Your task to perform on an android device: toggle javascript in the chrome app Image 0: 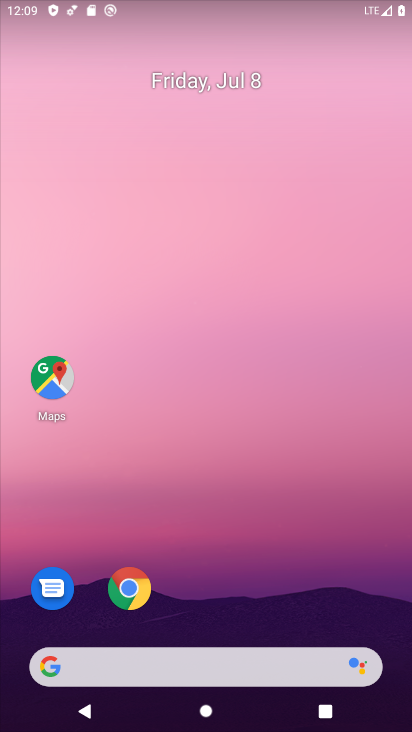
Step 0: click (125, 586)
Your task to perform on an android device: toggle javascript in the chrome app Image 1: 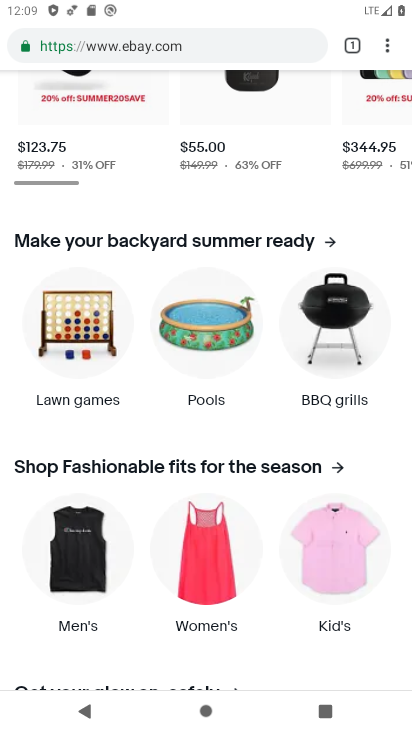
Step 1: drag from (150, 123) to (169, 564)
Your task to perform on an android device: toggle javascript in the chrome app Image 2: 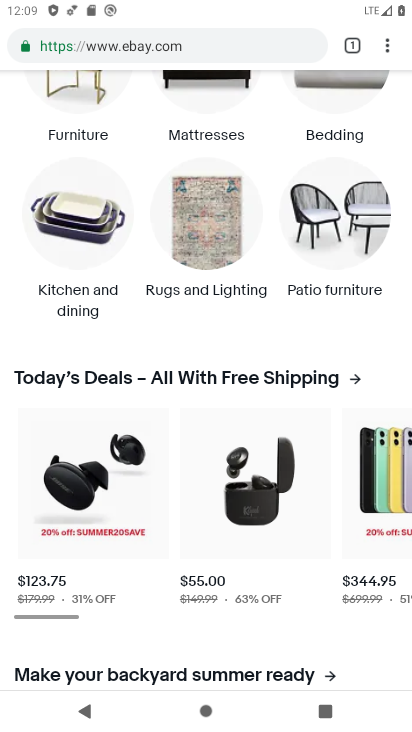
Step 2: click (346, 31)
Your task to perform on an android device: toggle javascript in the chrome app Image 3: 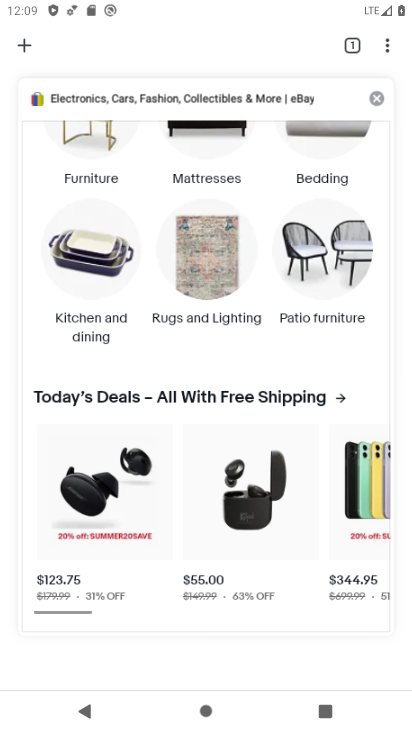
Step 3: click (379, 94)
Your task to perform on an android device: toggle javascript in the chrome app Image 4: 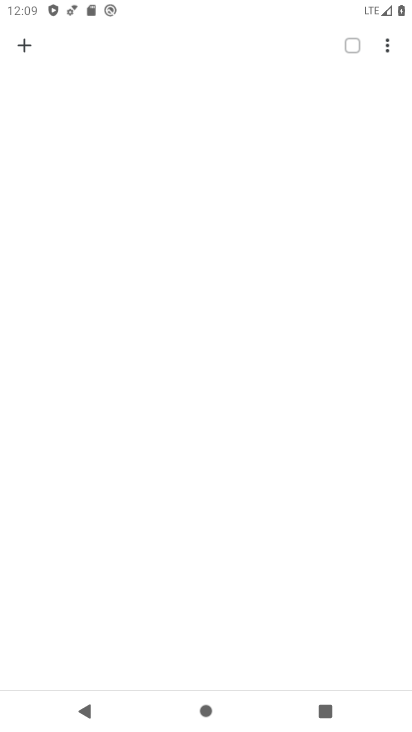
Step 4: click (21, 40)
Your task to perform on an android device: toggle javascript in the chrome app Image 5: 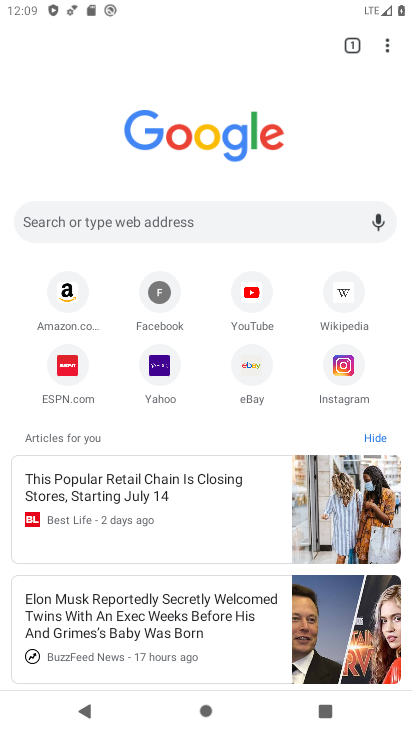
Step 5: click (390, 40)
Your task to perform on an android device: toggle javascript in the chrome app Image 6: 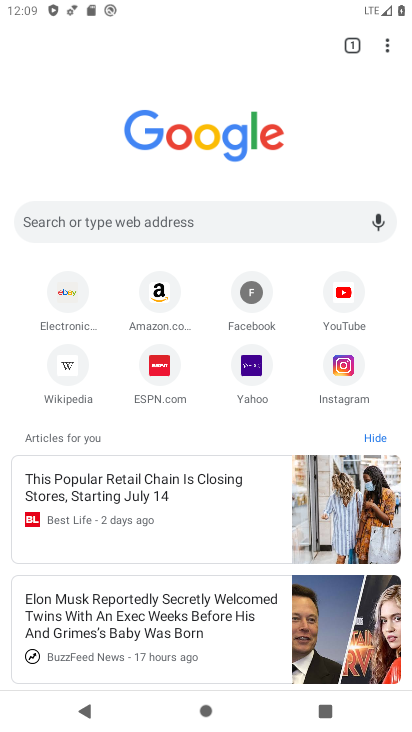
Step 6: click (385, 36)
Your task to perform on an android device: toggle javascript in the chrome app Image 7: 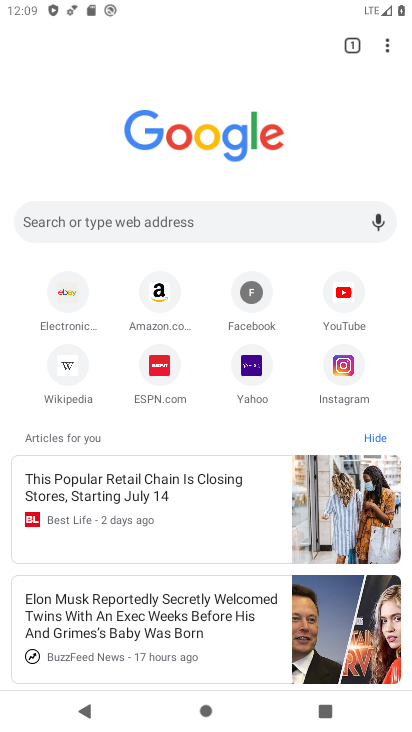
Step 7: click (385, 52)
Your task to perform on an android device: toggle javascript in the chrome app Image 8: 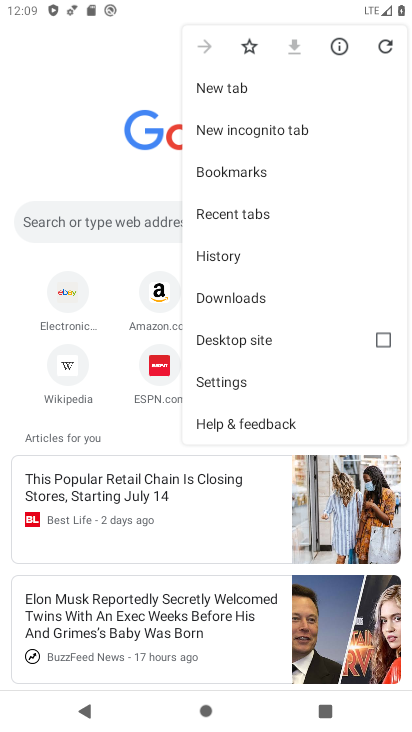
Step 8: click (253, 378)
Your task to perform on an android device: toggle javascript in the chrome app Image 9: 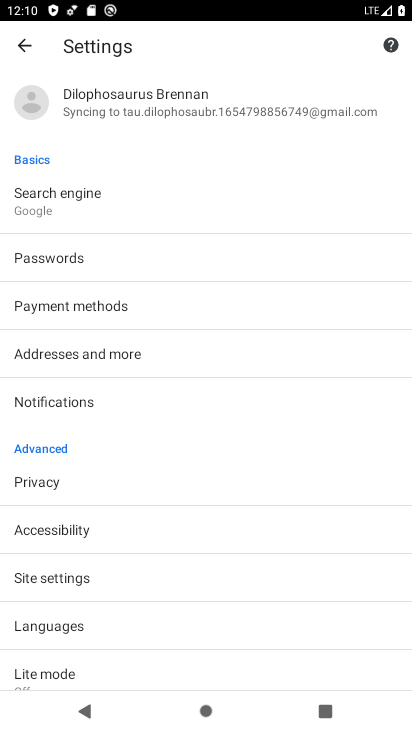
Step 9: click (109, 568)
Your task to perform on an android device: toggle javascript in the chrome app Image 10: 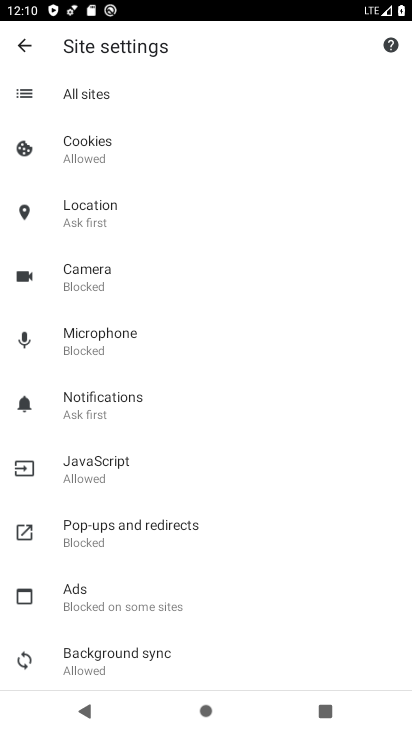
Step 10: click (131, 474)
Your task to perform on an android device: toggle javascript in the chrome app Image 11: 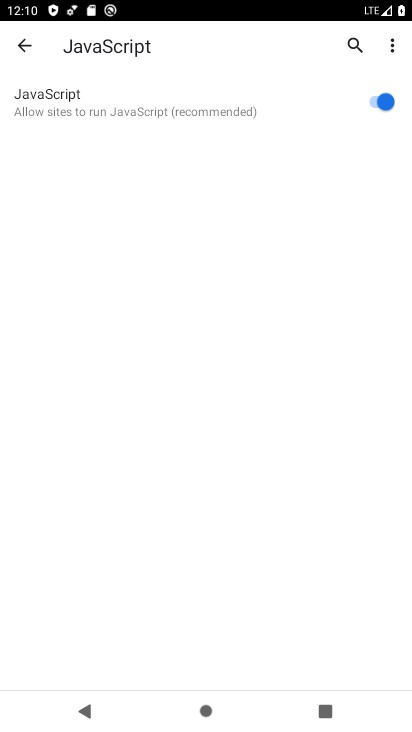
Step 11: task complete